Your task to perform on an android device: Search for vegetarian restaurants on Maps Image 0: 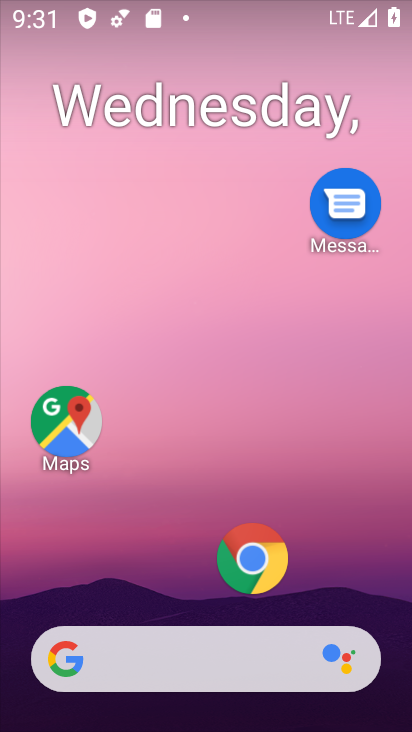
Step 0: click (86, 434)
Your task to perform on an android device: Search for vegetarian restaurants on Maps Image 1: 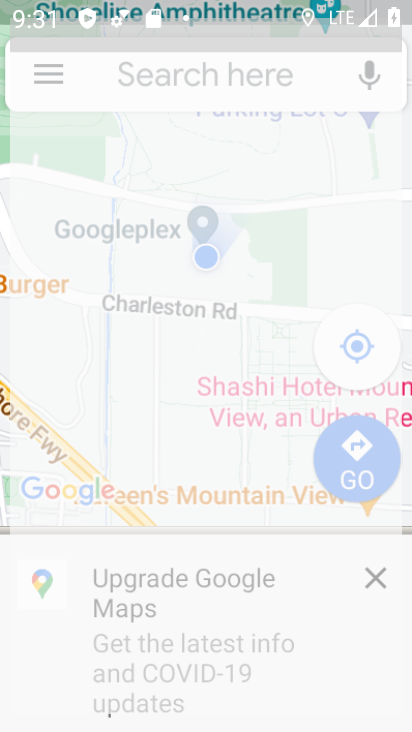
Step 1: click (225, 89)
Your task to perform on an android device: Search for vegetarian restaurants on Maps Image 2: 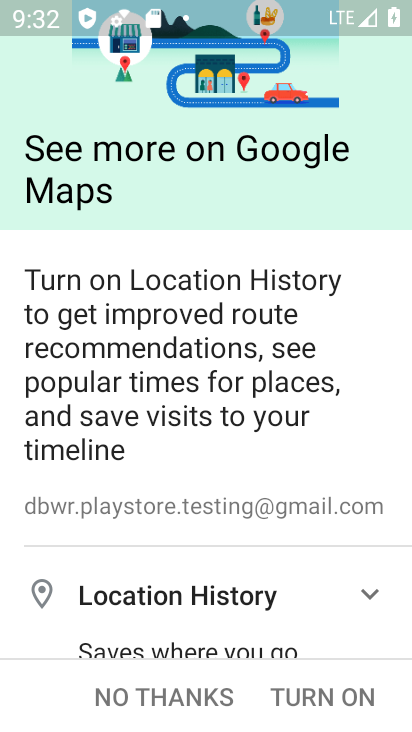
Step 2: click (285, 692)
Your task to perform on an android device: Search for vegetarian restaurants on Maps Image 3: 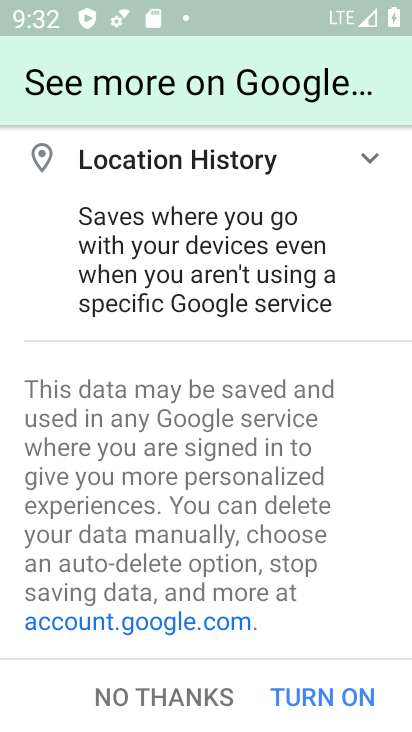
Step 3: click (359, 703)
Your task to perform on an android device: Search for vegetarian restaurants on Maps Image 4: 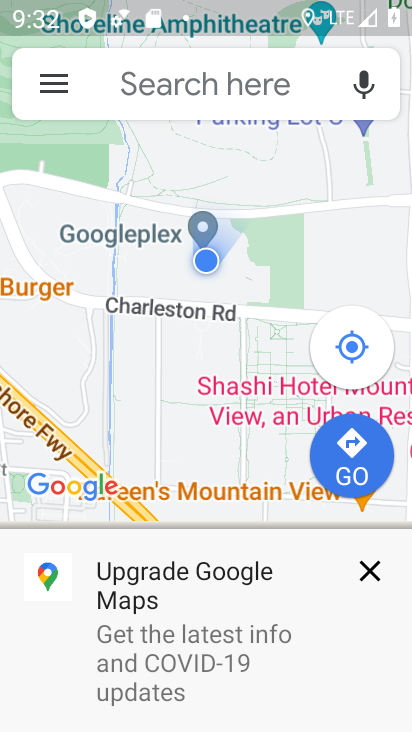
Step 4: click (207, 85)
Your task to perform on an android device: Search for vegetarian restaurants on Maps Image 5: 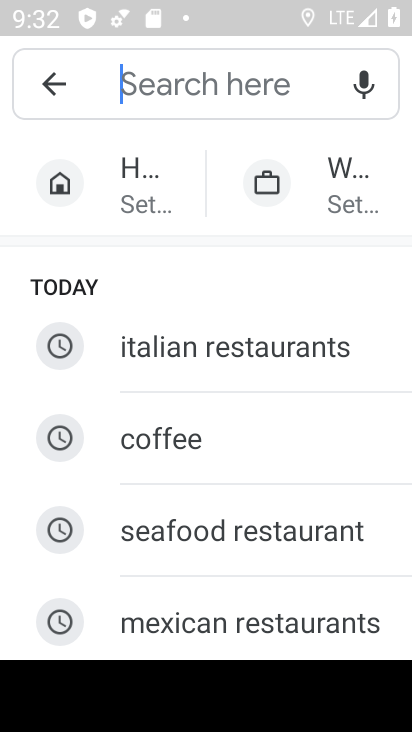
Step 5: drag from (169, 568) to (109, 235)
Your task to perform on an android device: Search for vegetarian restaurants on Maps Image 6: 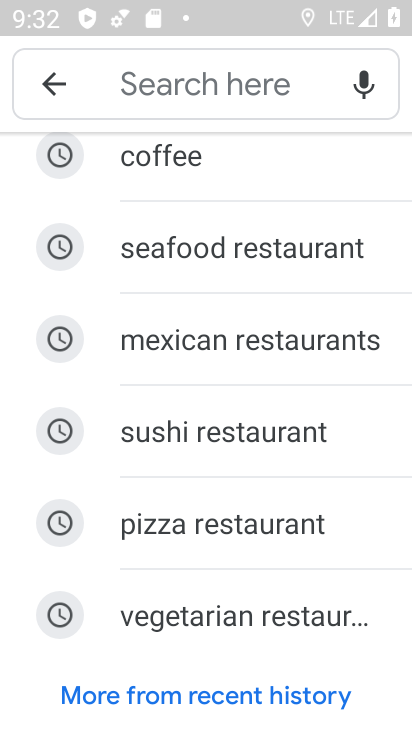
Step 6: click (209, 610)
Your task to perform on an android device: Search for vegetarian restaurants on Maps Image 7: 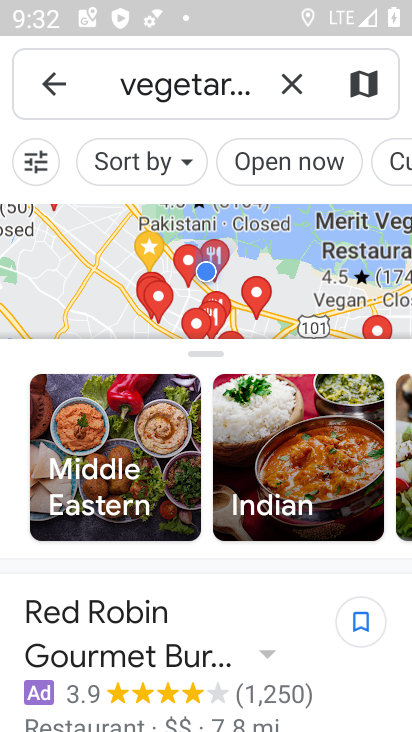
Step 7: task complete